Your task to perform on an android device: turn off priority inbox in the gmail app Image 0: 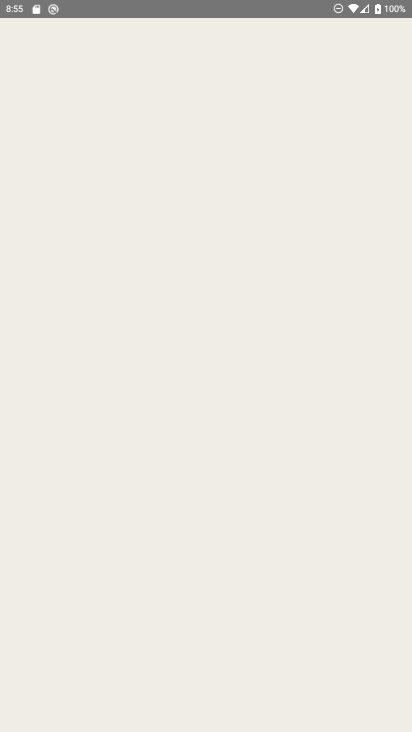
Step 0: click (244, 332)
Your task to perform on an android device: turn off priority inbox in the gmail app Image 1: 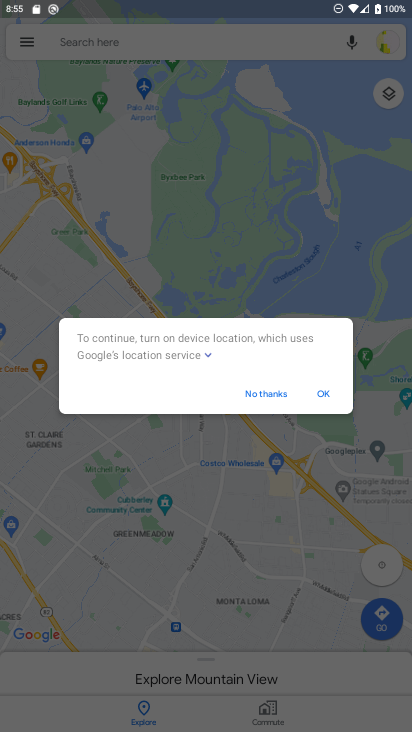
Step 1: press home button
Your task to perform on an android device: turn off priority inbox in the gmail app Image 2: 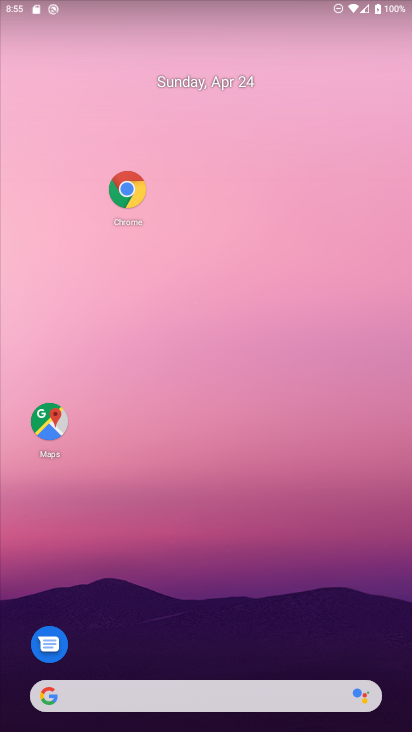
Step 2: drag from (219, 511) to (267, 179)
Your task to perform on an android device: turn off priority inbox in the gmail app Image 3: 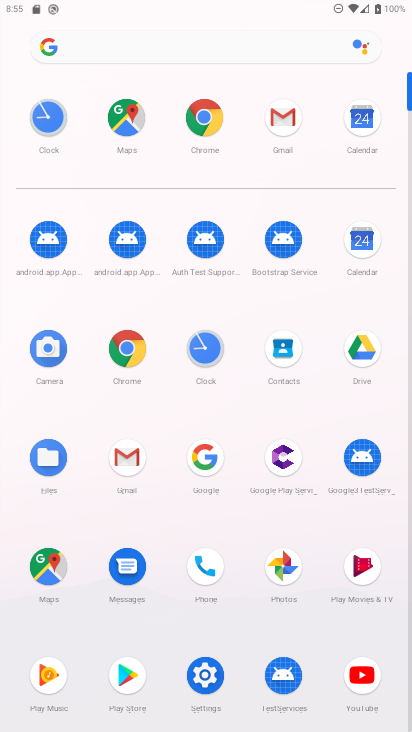
Step 3: click (116, 453)
Your task to perform on an android device: turn off priority inbox in the gmail app Image 4: 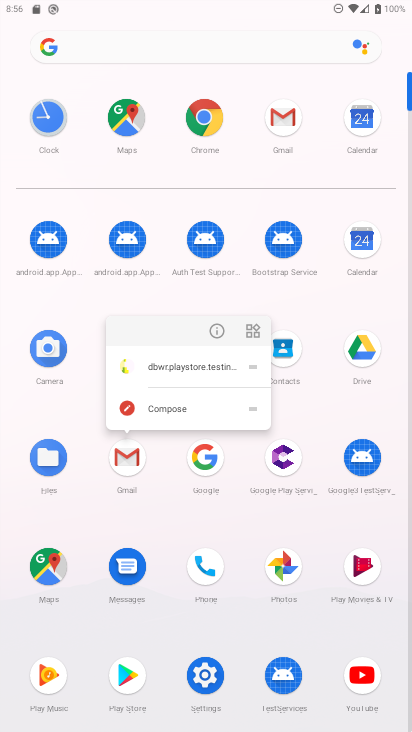
Step 4: click (220, 323)
Your task to perform on an android device: turn off priority inbox in the gmail app Image 5: 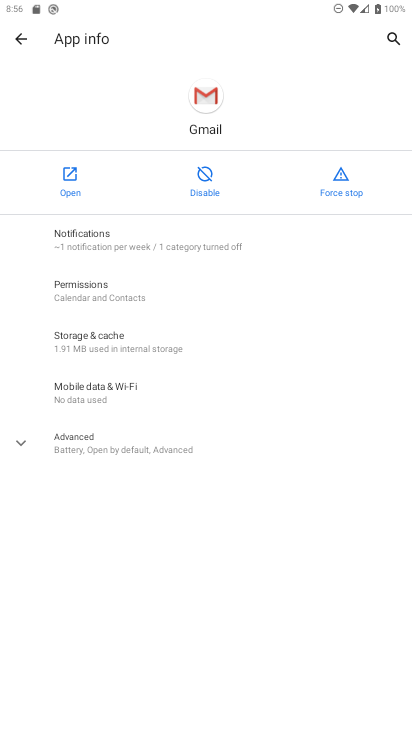
Step 5: click (68, 176)
Your task to perform on an android device: turn off priority inbox in the gmail app Image 6: 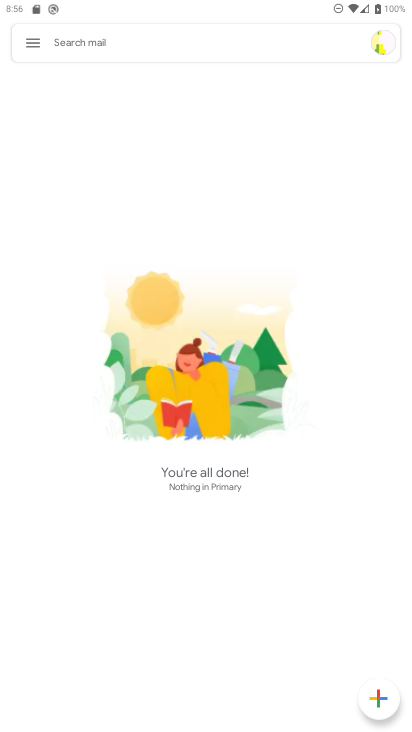
Step 6: drag from (202, 520) to (274, 217)
Your task to perform on an android device: turn off priority inbox in the gmail app Image 7: 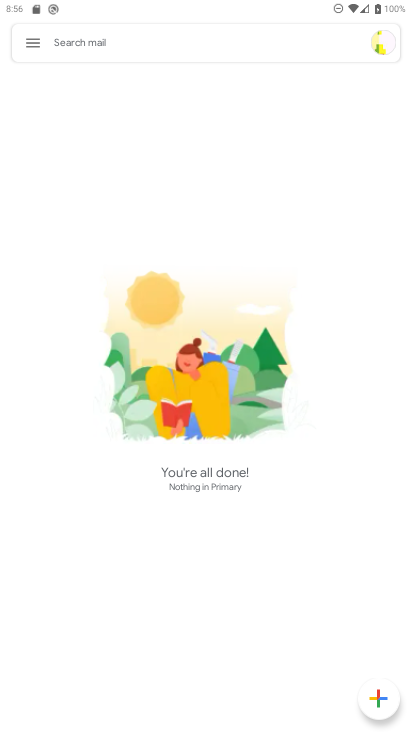
Step 7: click (34, 35)
Your task to perform on an android device: turn off priority inbox in the gmail app Image 8: 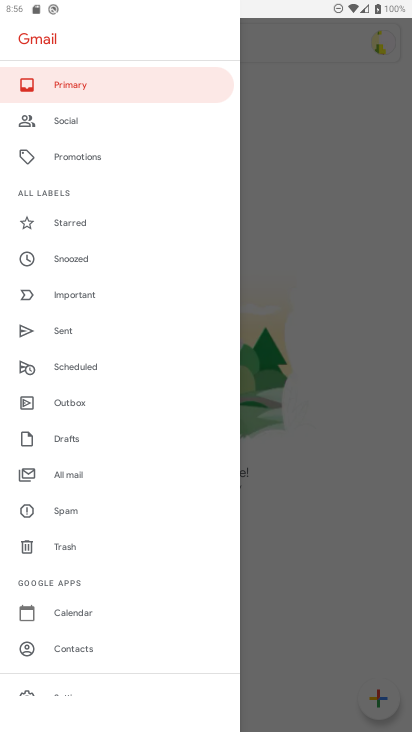
Step 8: drag from (74, 659) to (133, 263)
Your task to perform on an android device: turn off priority inbox in the gmail app Image 9: 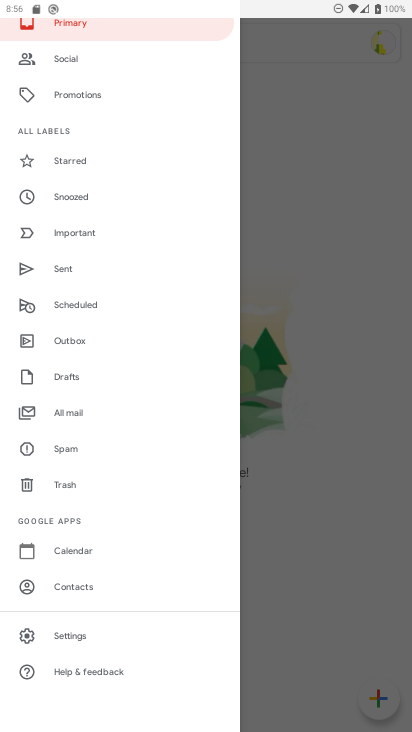
Step 9: click (82, 634)
Your task to perform on an android device: turn off priority inbox in the gmail app Image 10: 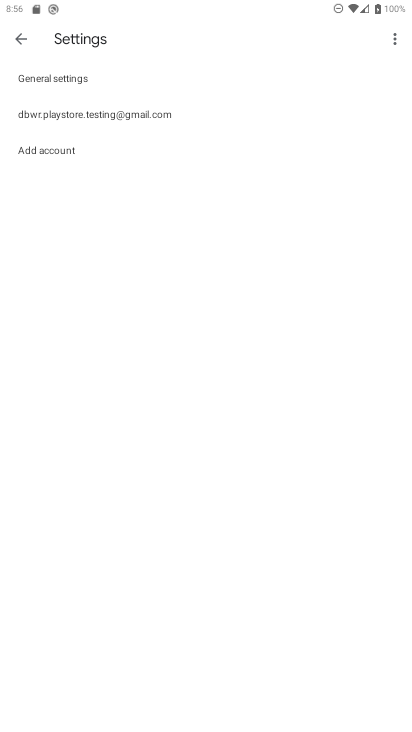
Step 10: click (195, 113)
Your task to perform on an android device: turn off priority inbox in the gmail app Image 11: 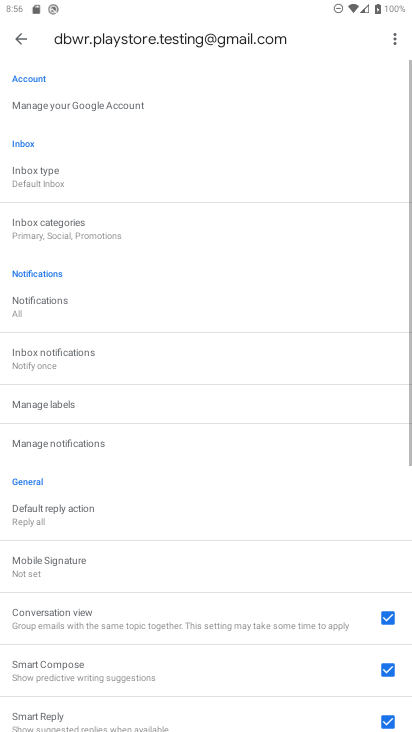
Step 11: click (89, 187)
Your task to perform on an android device: turn off priority inbox in the gmail app Image 12: 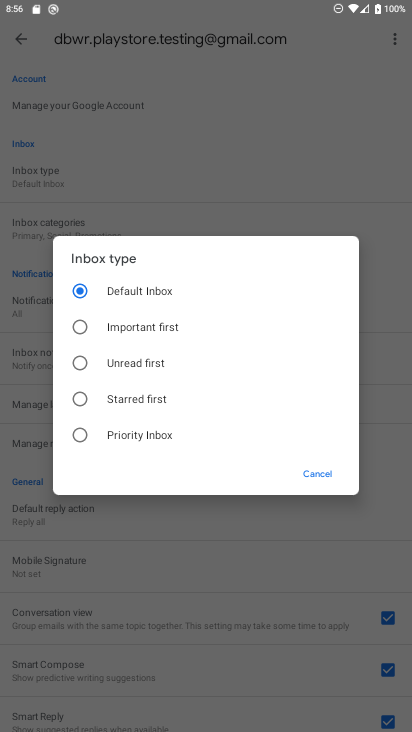
Step 12: click (136, 327)
Your task to perform on an android device: turn off priority inbox in the gmail app Image 13: 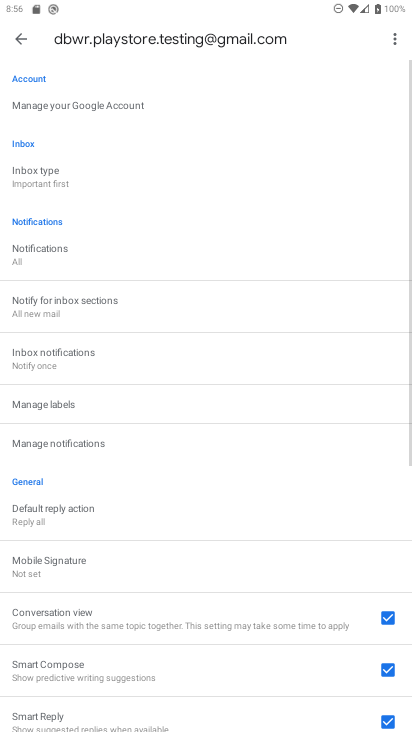
Step 13: task complete